Your task to perform on an android device: What is the news today? Image 0: 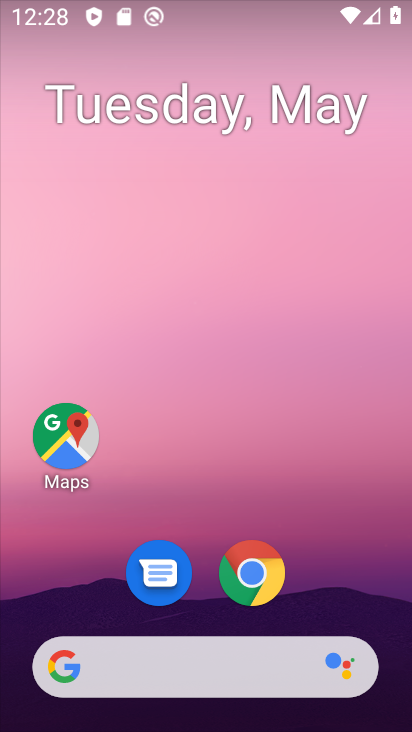
Step 0: drag from (299, 521) to (317, 44)
Your task to perform on an android device: What is the news today? Image 1: 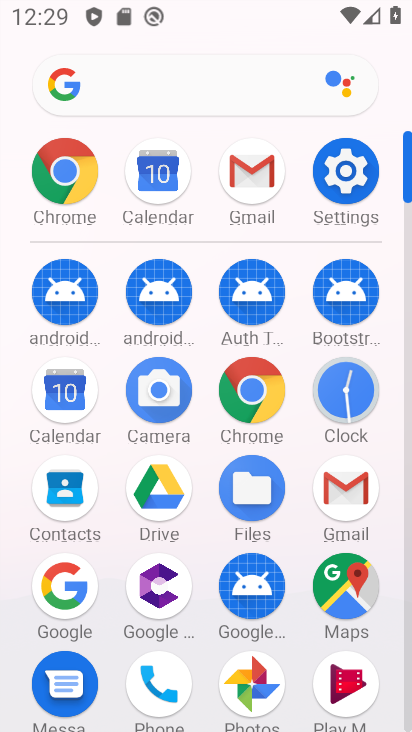
Step 1: click (53, 200)
Your task to perform on an android device: What is the news today? Image 2: 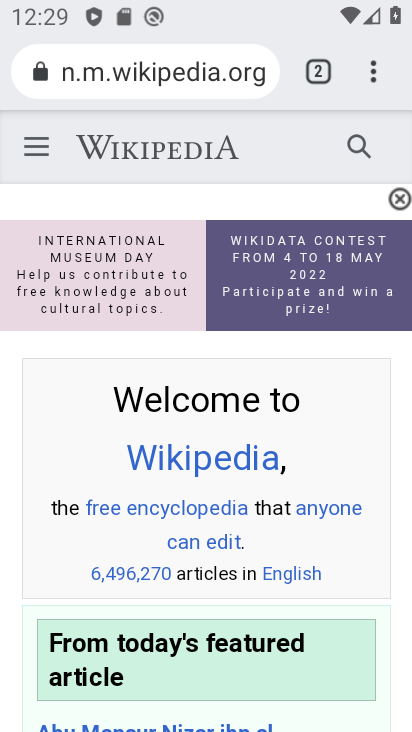
Step 2: task complete